Your task to perform on an android device: Open sound settings Image 0: 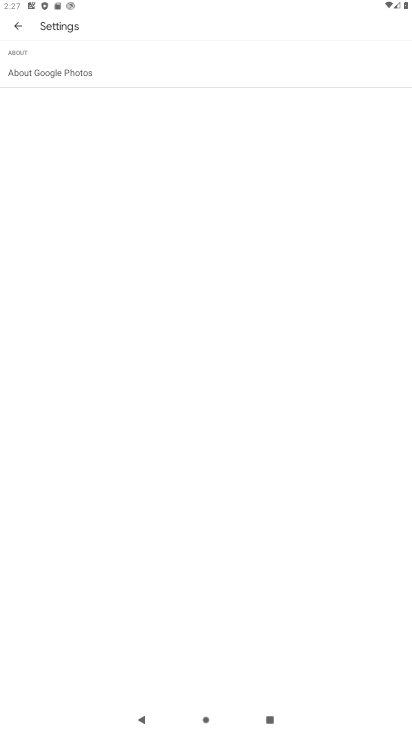
Step 0: task complete